Your task to perform on an android device: change notifications settings Image 0: 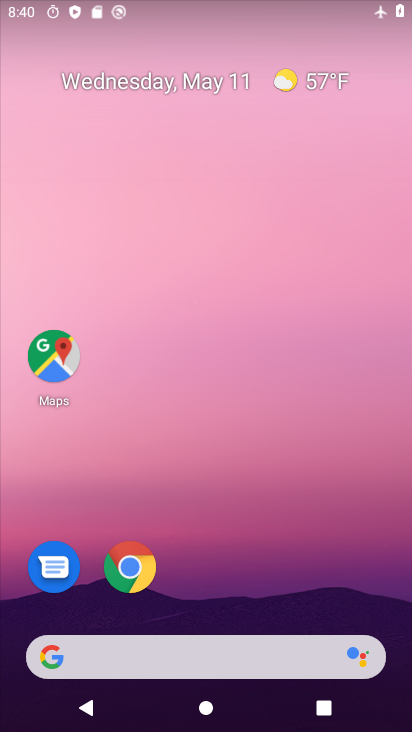
Step 0: drag from (261, 549) to (221, 74)
Your task to perform on an android device: change notifications settings Image 1: 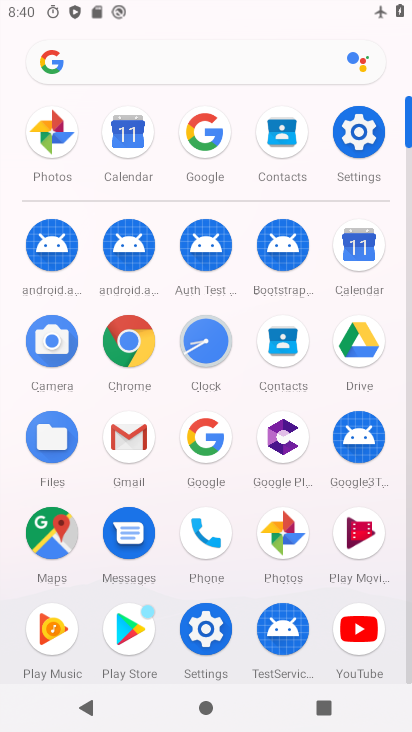
Step 1: click (359, 136)
Your task to perform on an android device: change notifications settings Image 2: 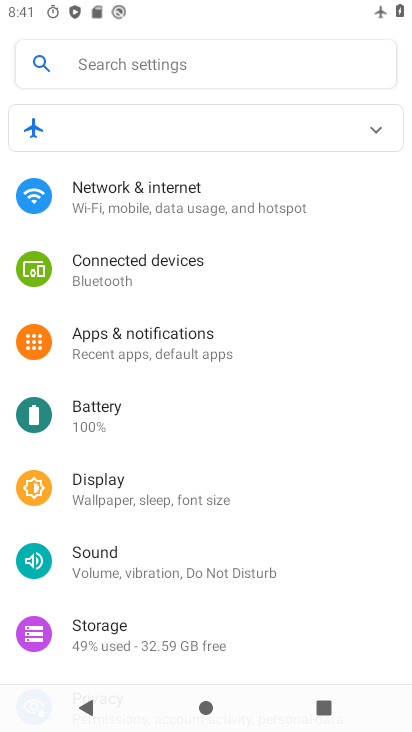
Step 2: click (157, 345)
Your task to perform on an android device: change notifications settings Image 3: 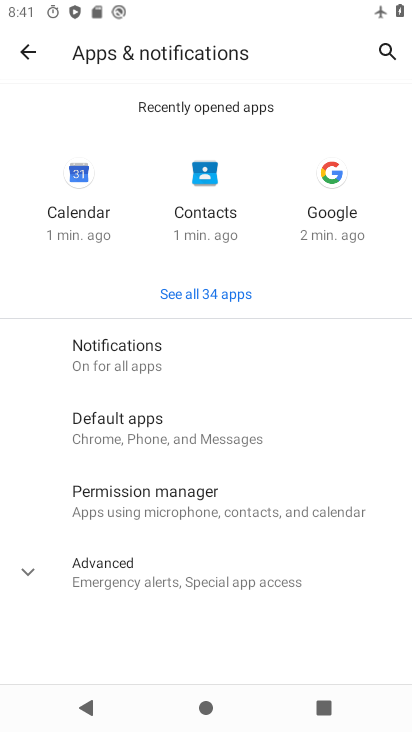
Step 3: click (204, 362)
Your task to perform on an android device: change notifications settings Image 4: 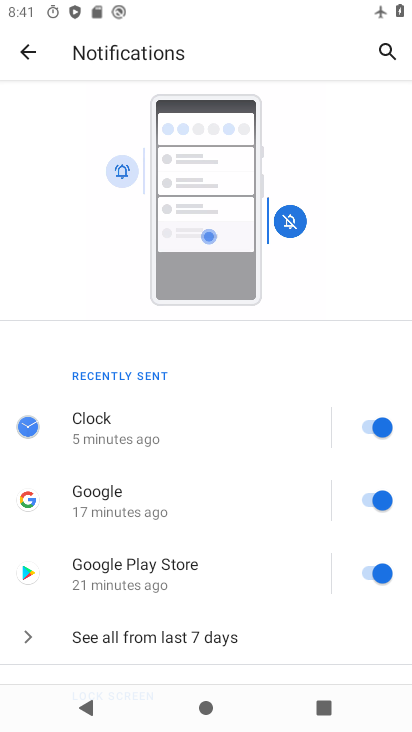
Step 4: click (375, 427)
Your task to perform on an android device: change notifications settings Image 5: 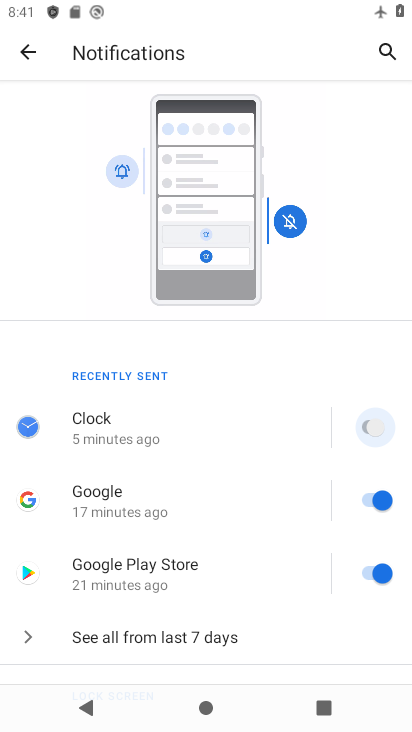
Step 5: click (375, 498)
Your task to perform on an android device: change notifications settings Image 6: 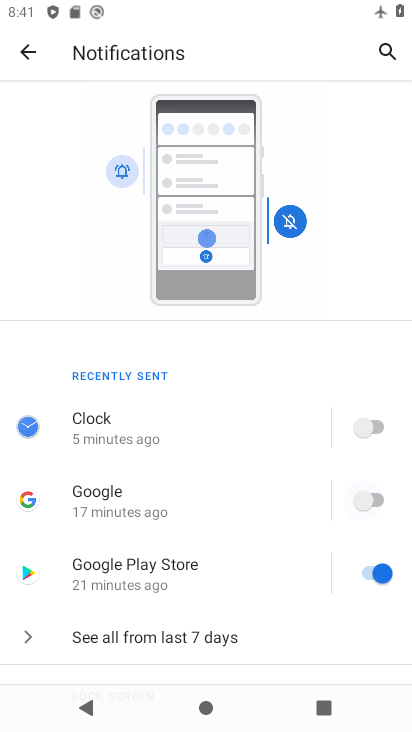
Step 6: click (377, 574)
Your task to perform on an android device: change notifications settings Image 7: 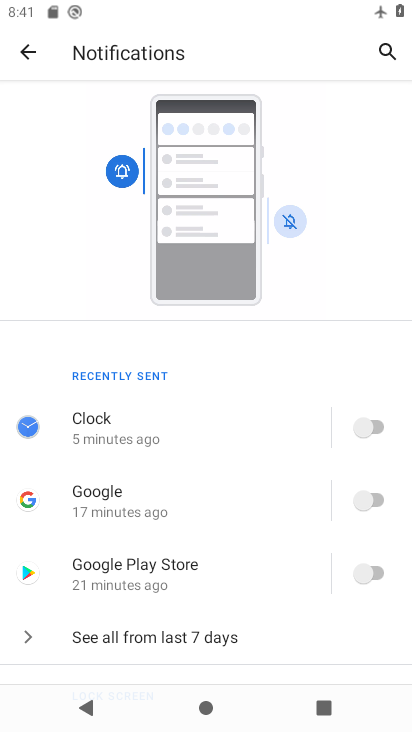
Step 7: task complete